Your task to perform on an android device: toggle sleep mode Image 0: 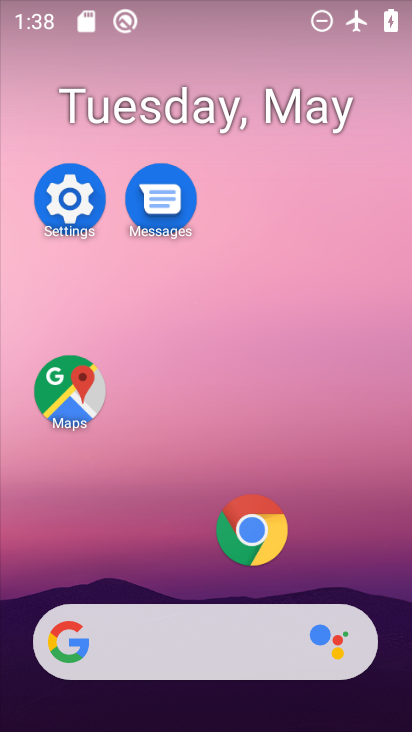
Step 0: drag from (215, 453) to (284, 211)
Your task to perform on an android device: toggle sleep mode Image 1: 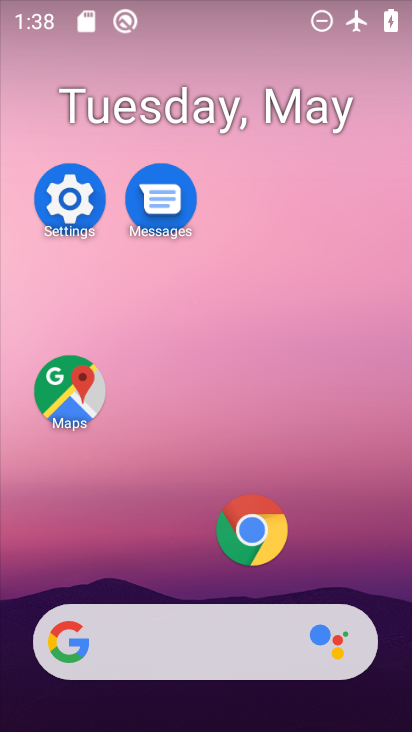
Step 1: drag from (201, 498) to (260, 166)
Your task to perform on an android device: toggle sleep mode Image 2: 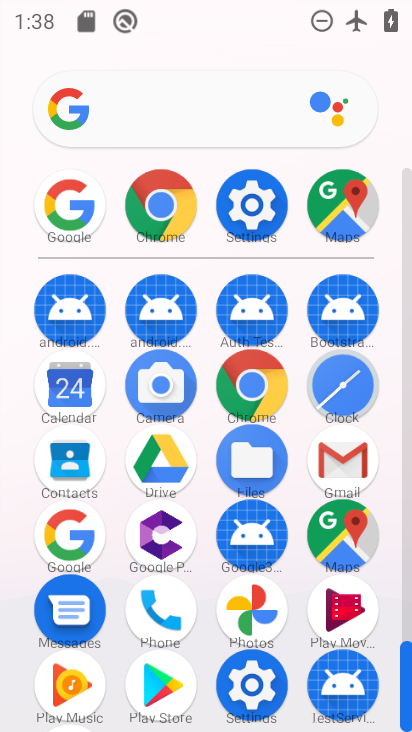
Step 2: click (275, 221)
Your task to perform on an android device: toggle sleep mode Image 3: 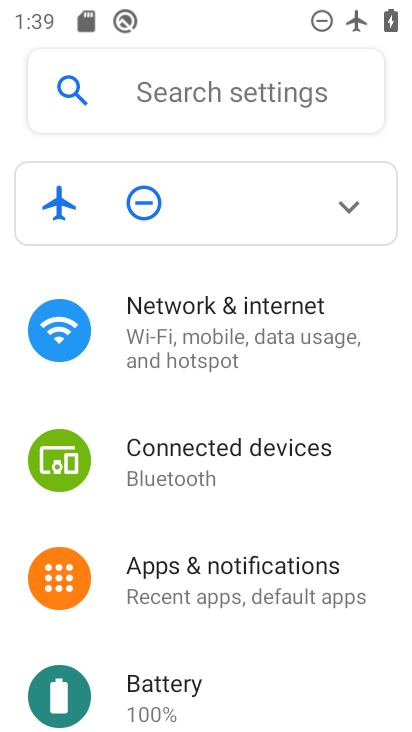
Step 3: task complete